Your task to perform on an android device: Open privacy settings Image 0: 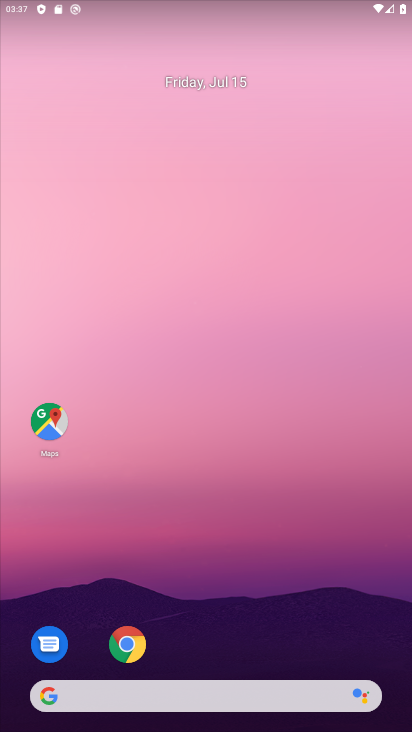
Step 0: drag from (316, 644) to (231, 7)
Your task to perform on an android device: Open privacy settings Image 1: 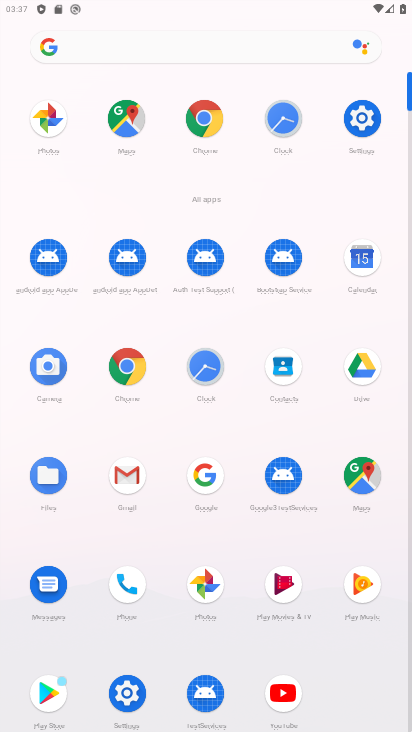
Step 1: click (364, 119)
Your task to perform on an android device: Open privacy settings Image 2: 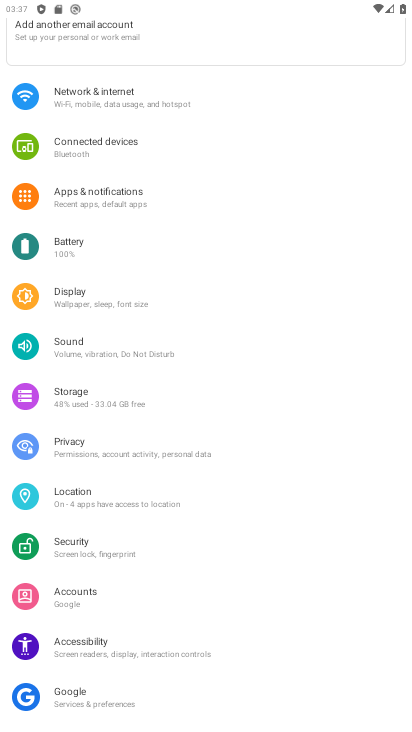
Step 2: click (236, 443)
Your task to perform on an android device: Open privacy settings Image 3: 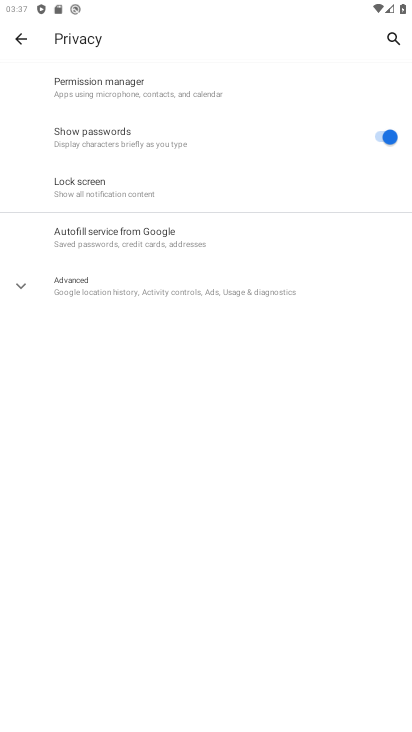
Step 3: task complete